Your task to perform on an android device: Open maps Image 0: 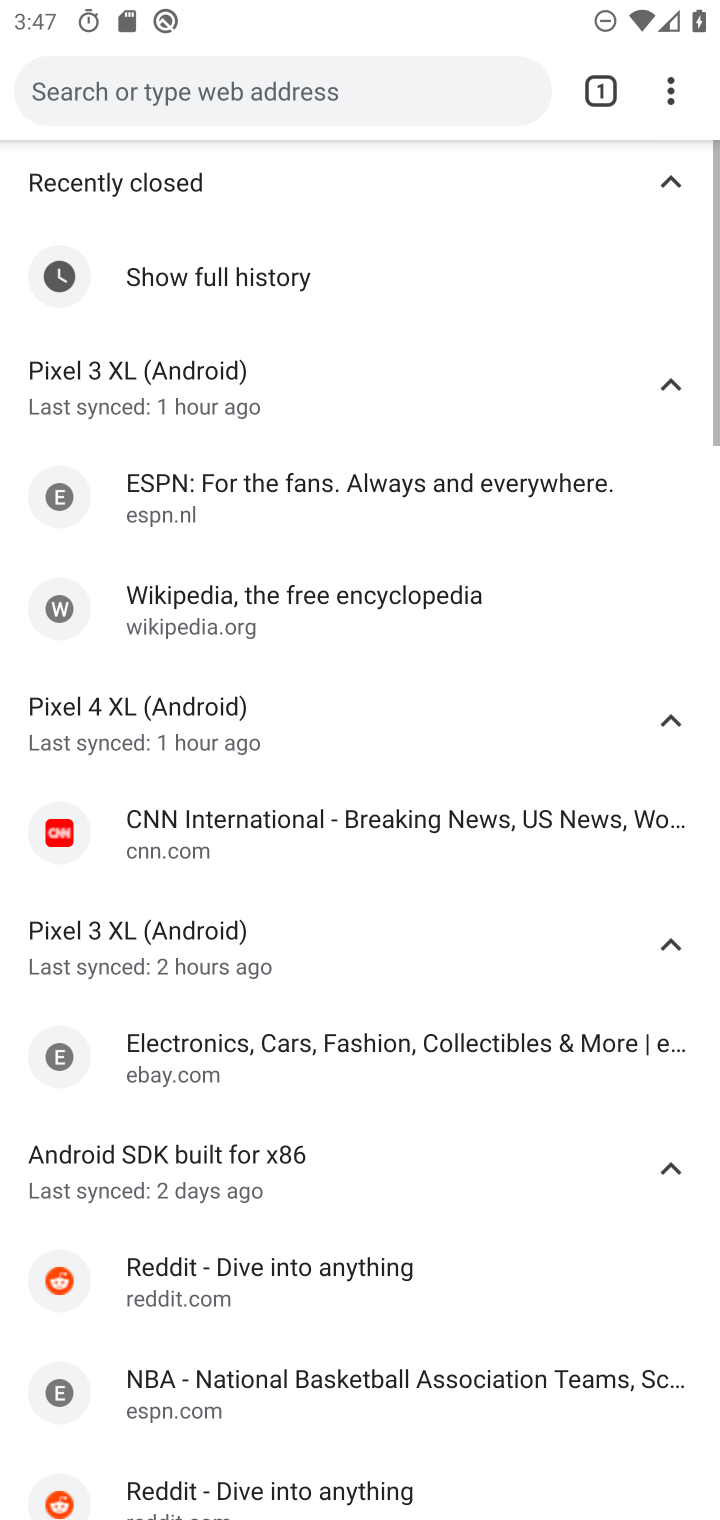
Step 0: press back button
Your task to perform on an android device: Open maps Image 1: 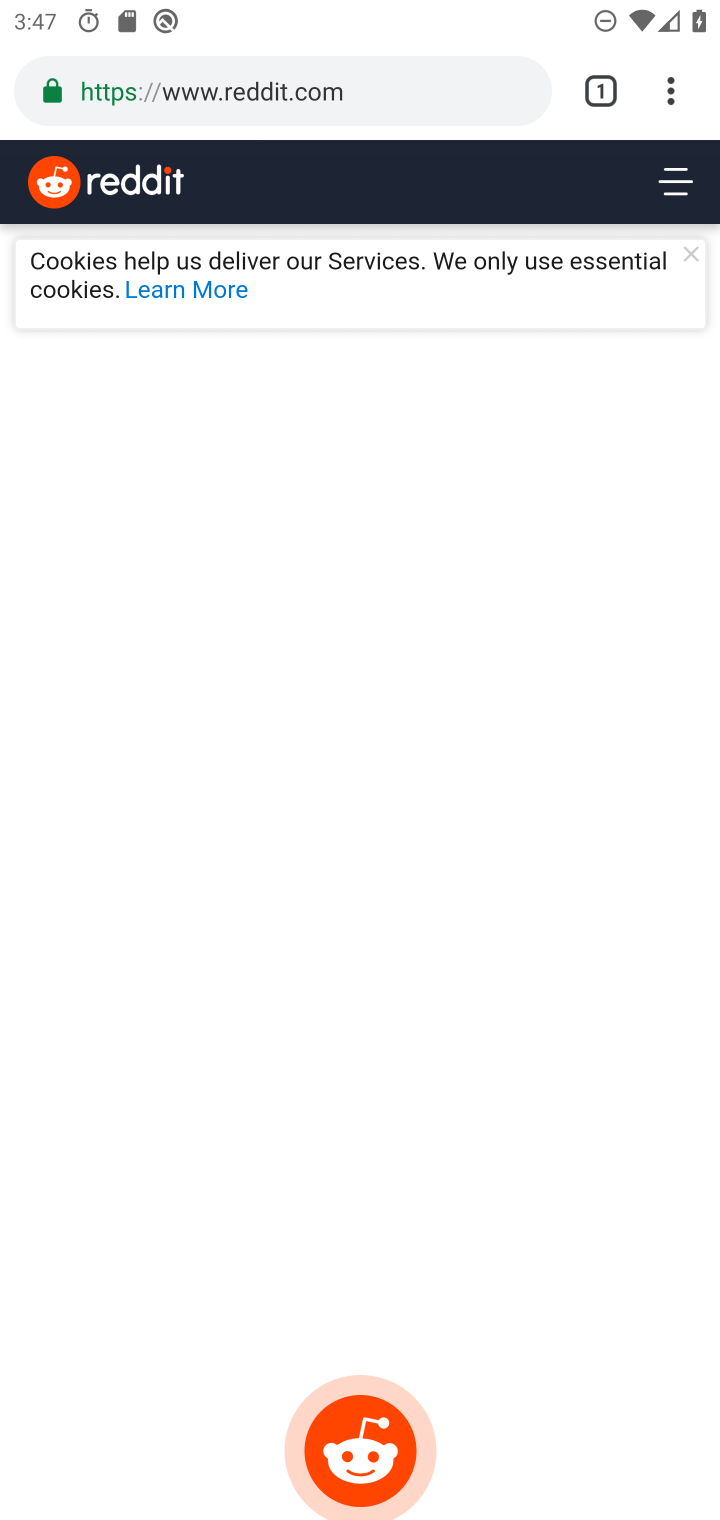
Step 1: press back button
Your task to perform on an android device: Open maps Image 2: 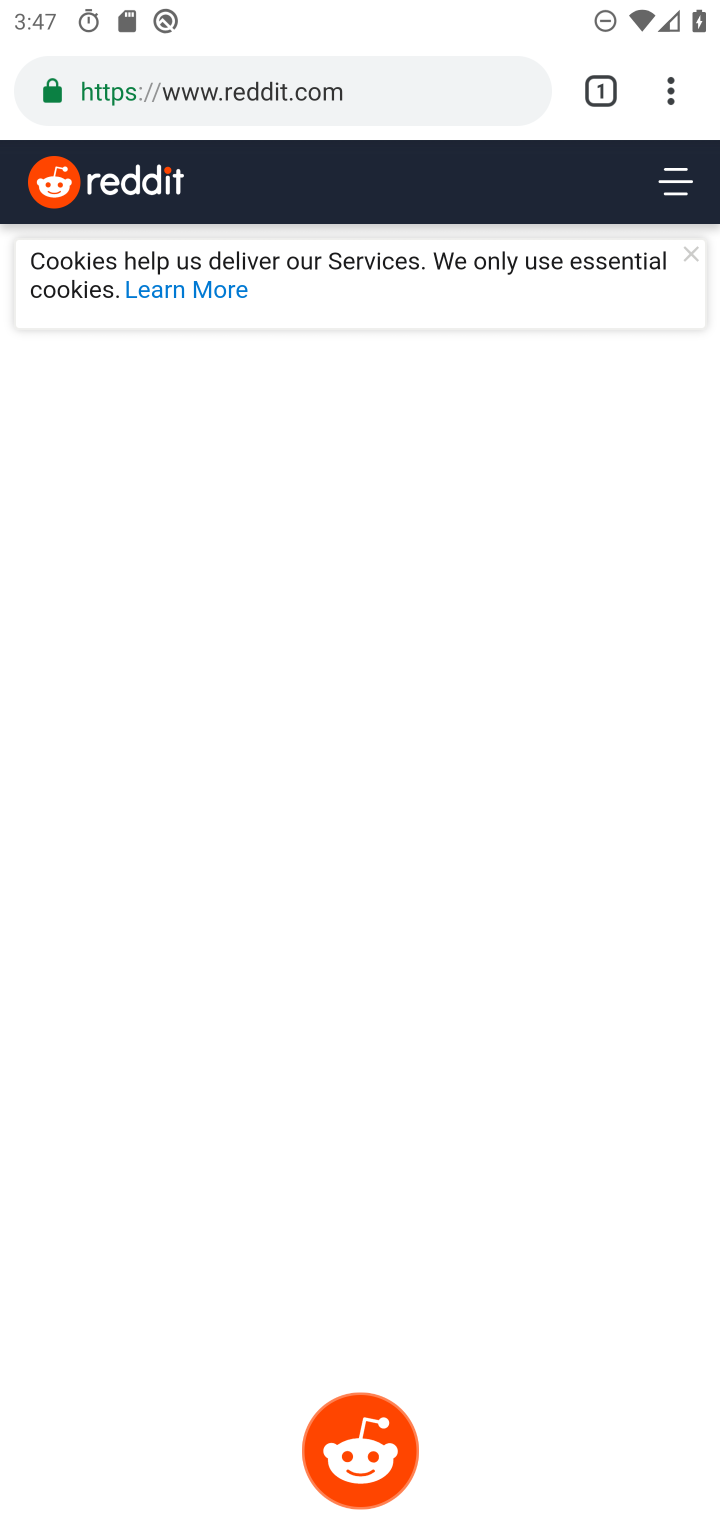
Step 2: press back button
Your task to perform on an android device: Open maps Image 3: 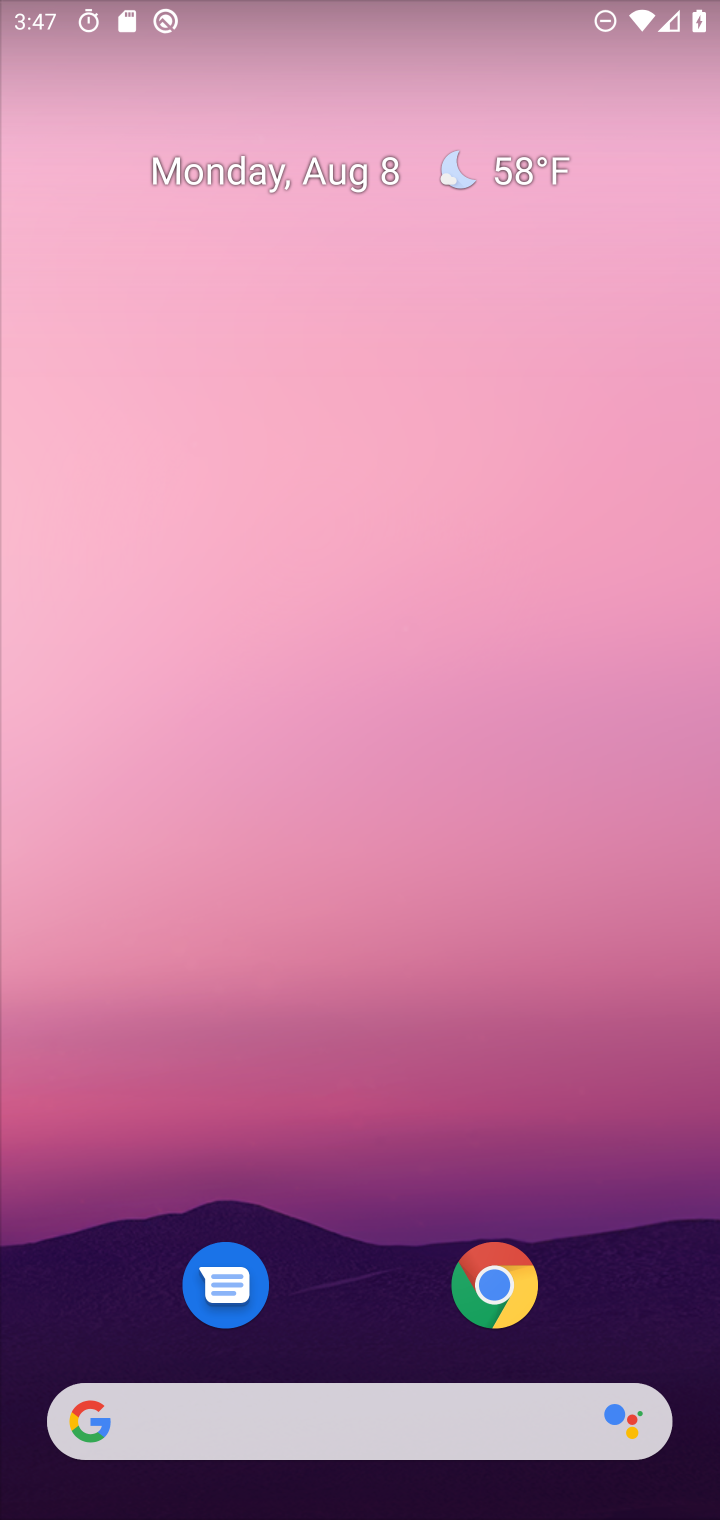
Step 3: drag from (365, 1378) to (501, 109)
Your task to perform on an android device: Open maps Image 4: 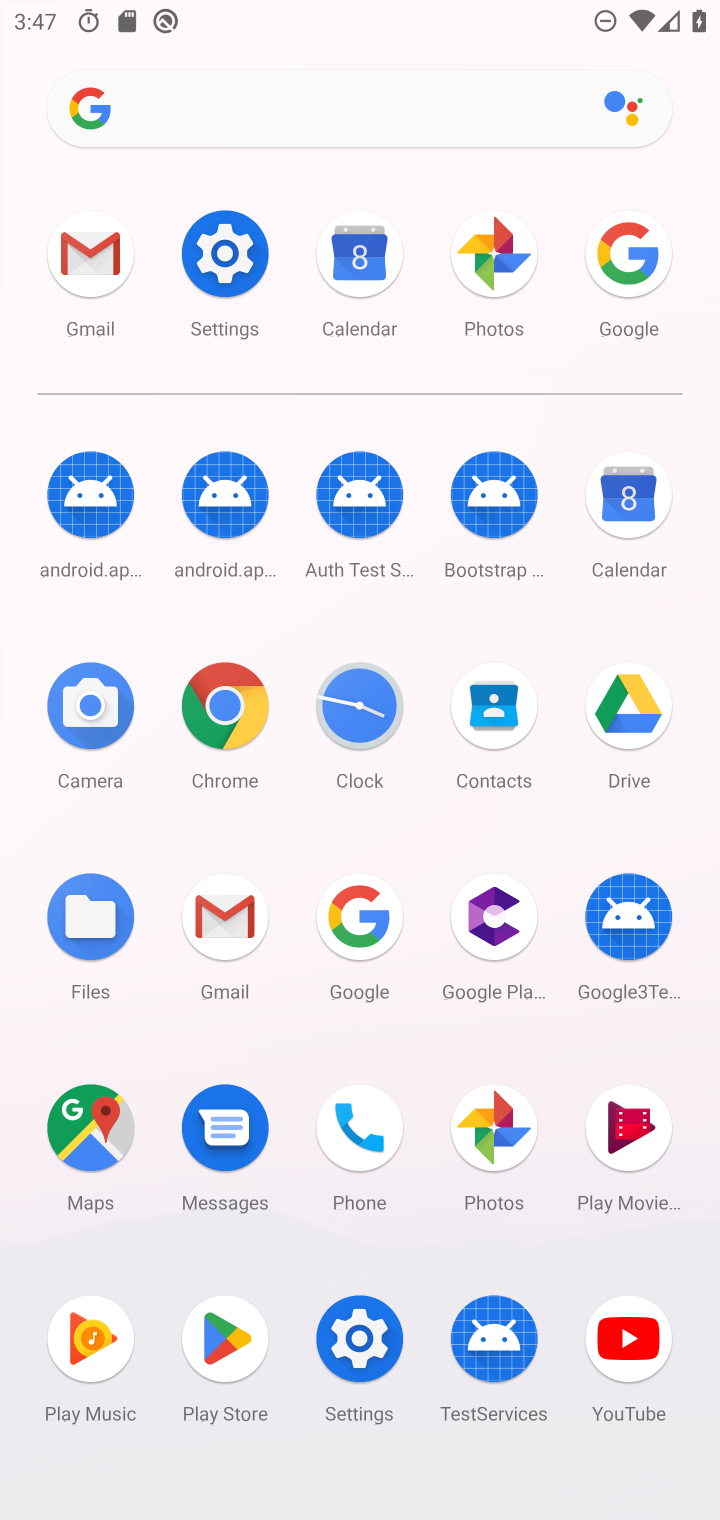
Step 4: click (94, 1140)
Your task to perform on an android device: Open maps Image 5: 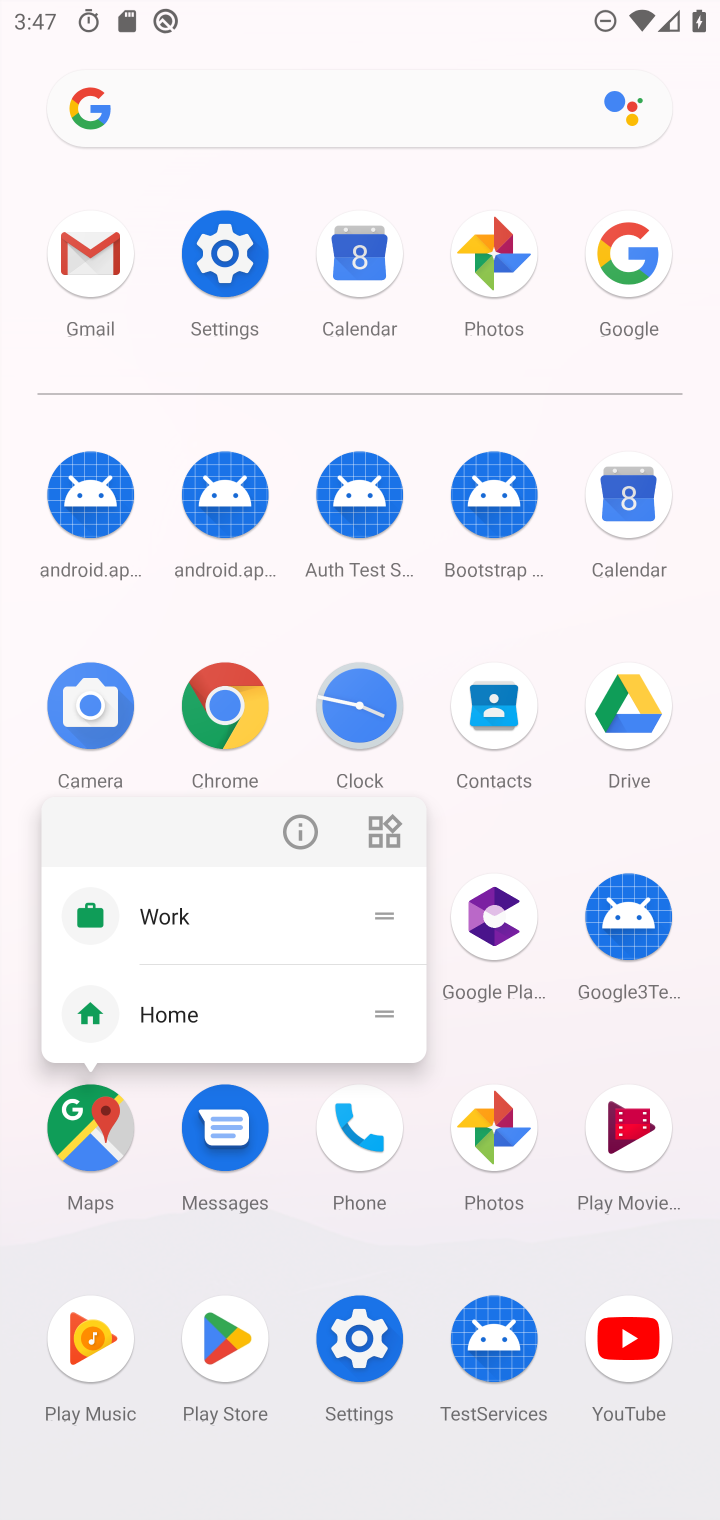
Step 5: click (94, 1140)
Your task to perform on an android device: Open maps Image 6: 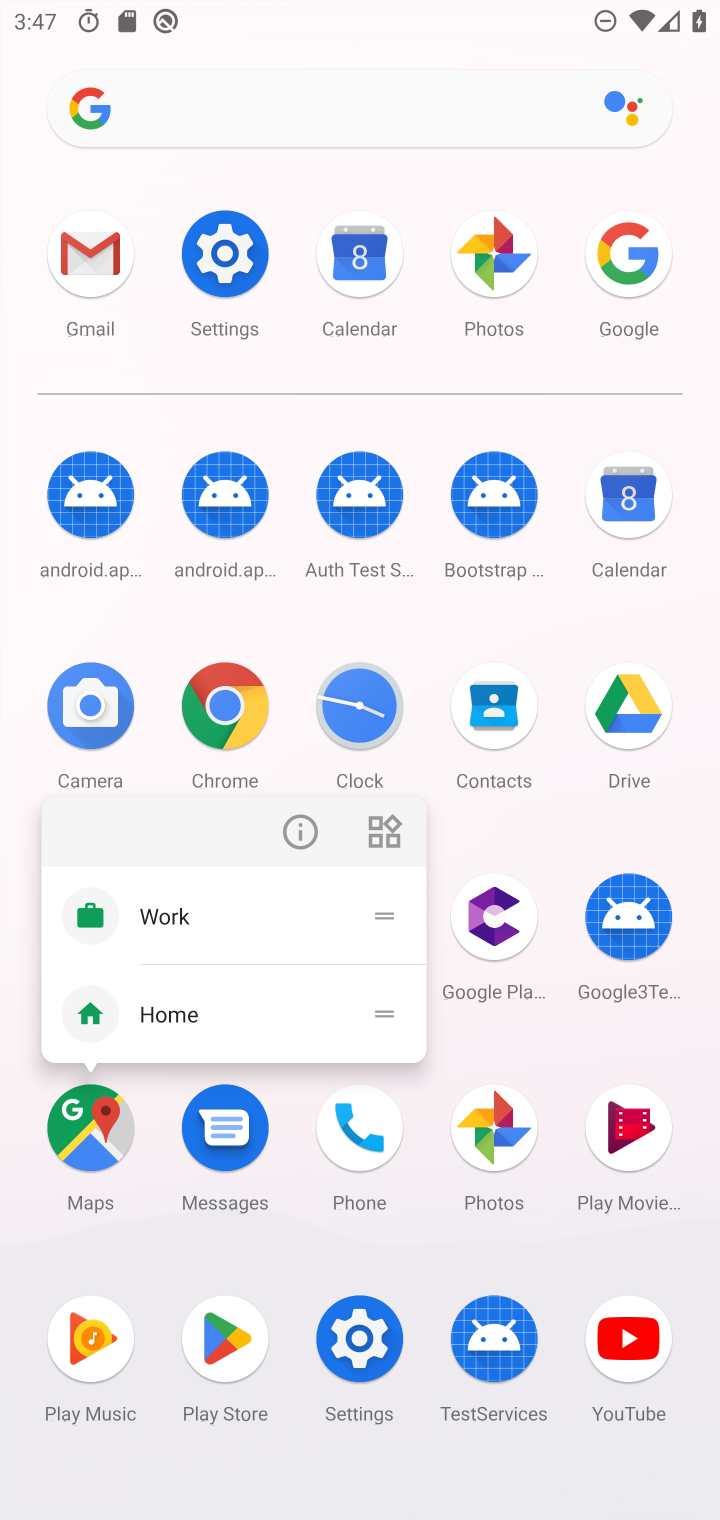
Step 6: click (88, 1138)
Your task to perform on an android device: Open maps Image 7: 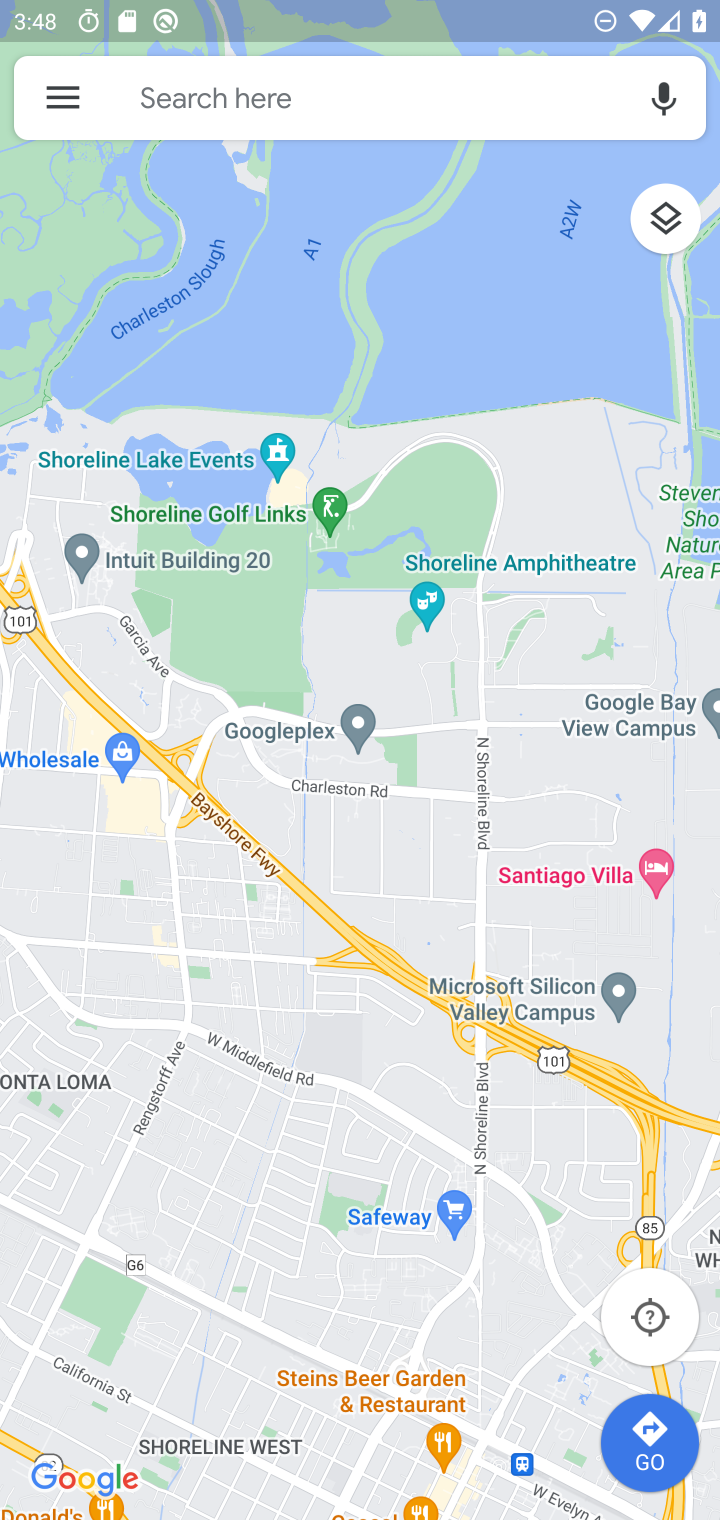
Step 7: task complete